Your task to perform on an android device: See recent photos Image 0: 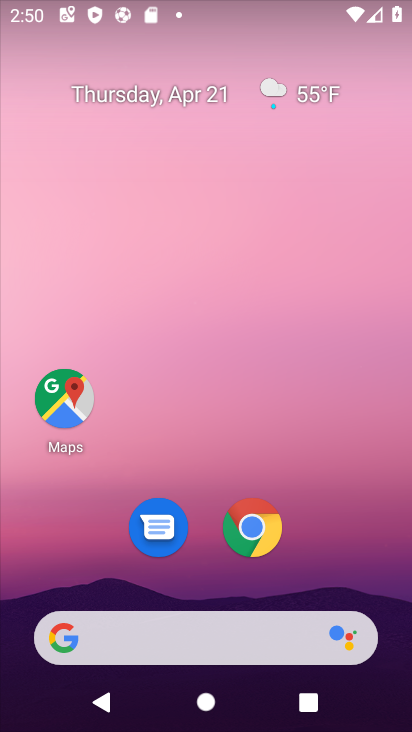
Step 0: drag from (390, 599) to (281, 182)
Your task to perform on an android device: See recent photos Image 1: 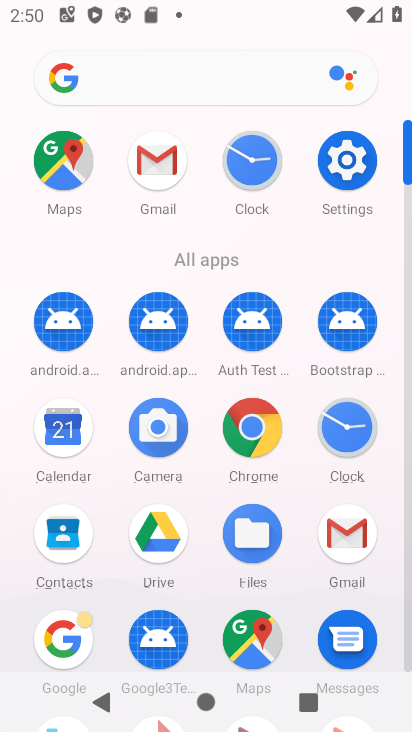
Step 1: click (408, 669)
Your task to perform on an android device: See recent photos Image 2: 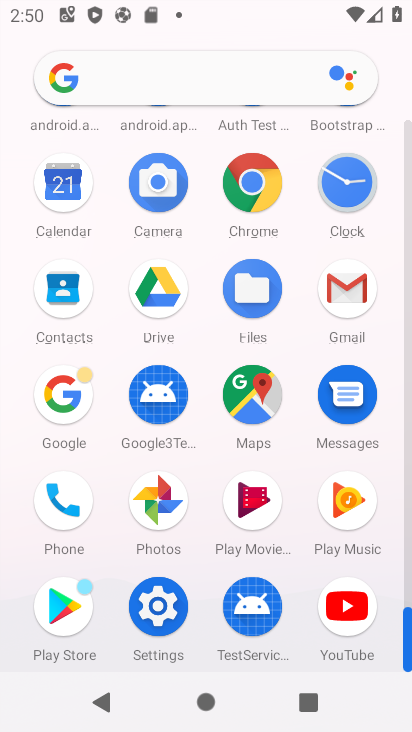
Step 2: click (174, 511)
Your task to perform on an android device: See recent photos Image 3: 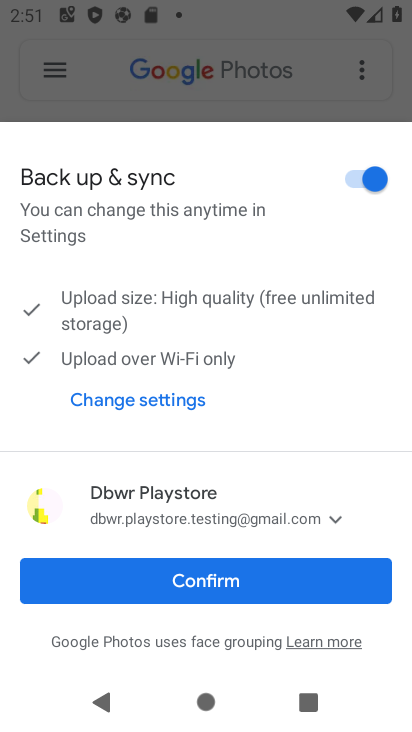
Step 3: click (233, 576)
Your task to perform on an android device: See recent photos Image 4: 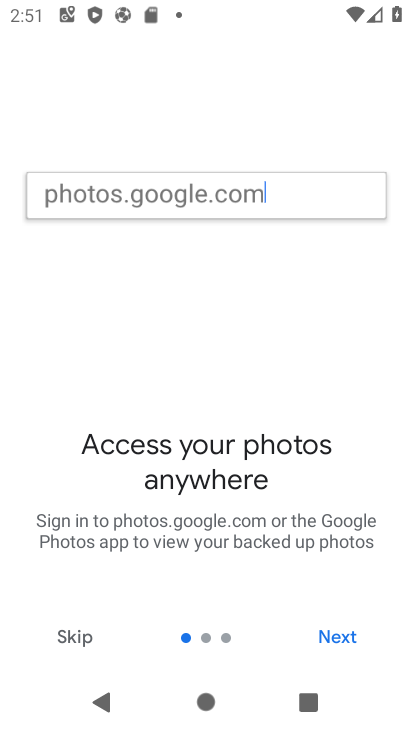
Step 4: click (328, 631)
Your task to perform on an android device: See recent photos Image 5: 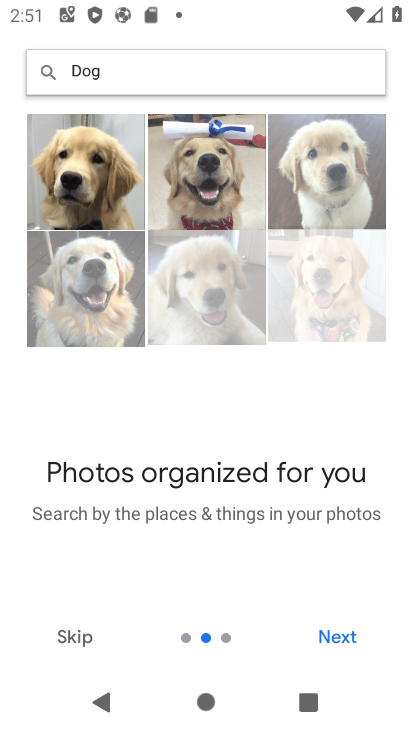
Step 5: click (328, 631)
Your task to perform on an android device: See recent photos Image 6: 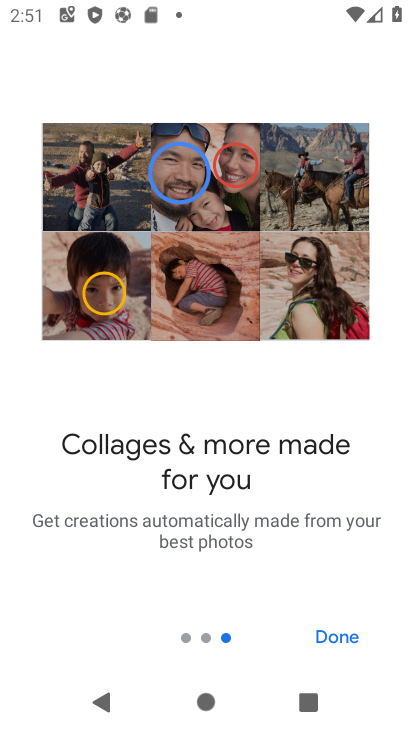
Step 6: click (328, 631)
Your task to perform on an android device: See recent photos Image 7: 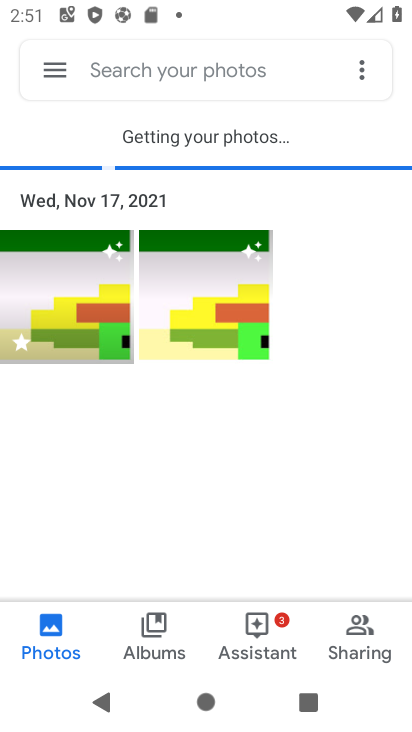
Step 7: task complete